Your task to perform on an android device: see tabs open on other devices in the chrome app Image 0: 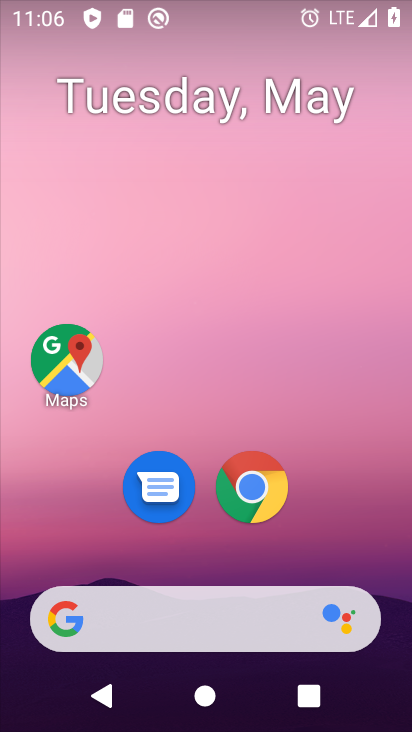
Step 0: drag from (217, 550) to (216, 63)
Your task to perform on an android device: see tabs open on other devices in the chrome app Image 1: 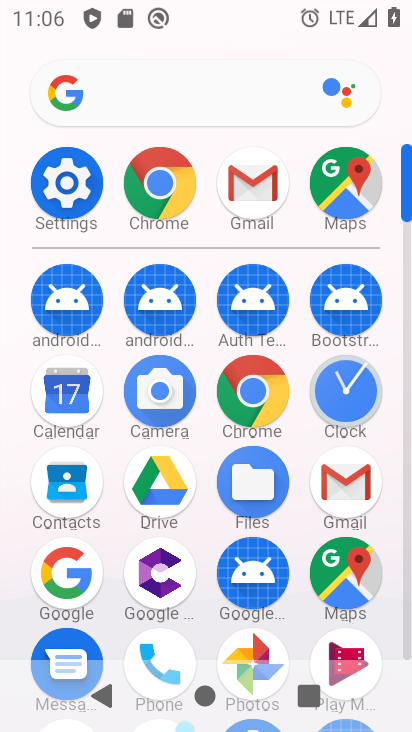
Step 1: click (255, 374)
Your task to perform on an android device: see tabs open on other devices in the chrome app Image 2: 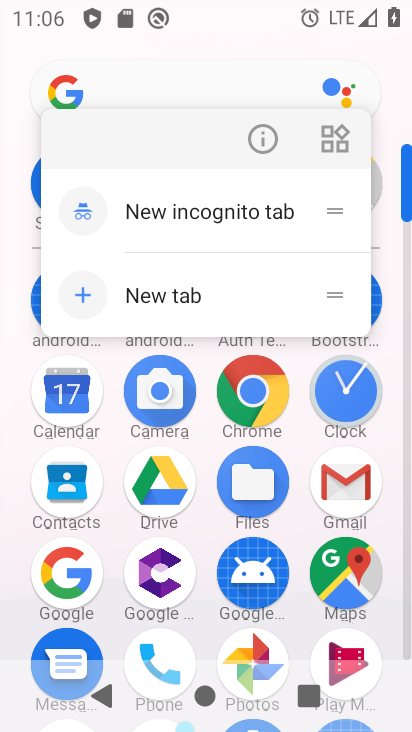
Step 2: click (270, 134)
Your task to perform on an android device: see tabs open on other devices in the chrome app Image 3: 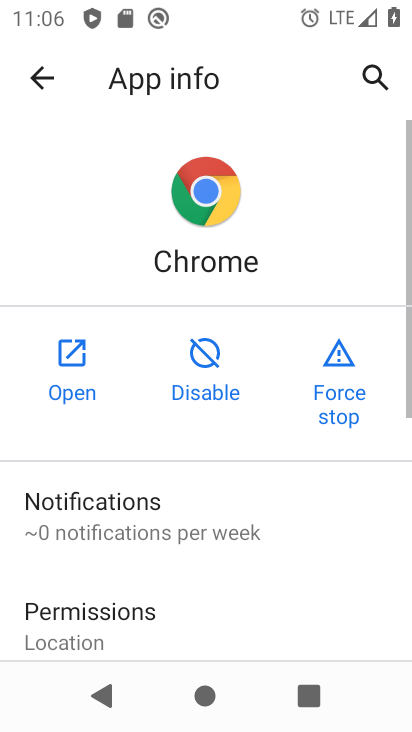
Step 3: click (82, 369)
Your task to perform on an android device: see tabs open on other devices in the chrome app Image 4: 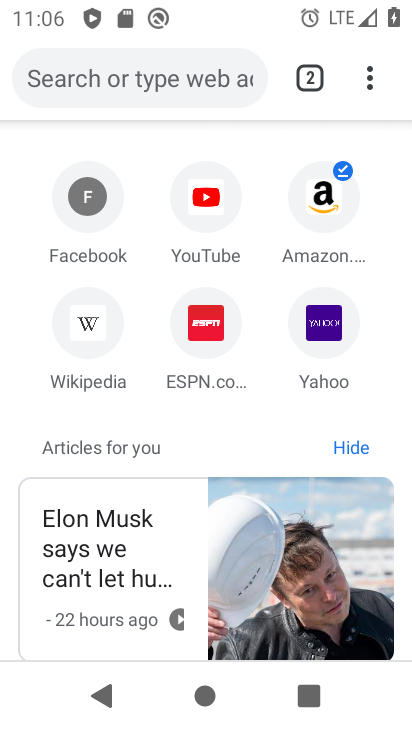
Step 4: click (378, 73)
Your task to perform on an android device: see tabs open on other devices in the chrome app Image 5: 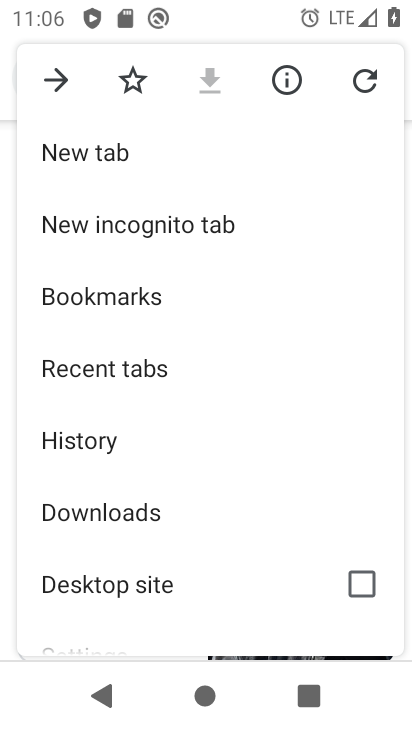
Step 5: drag from (160, 579) to (183, 265)
Your task to perform on an android device: see tabs open on other devices in the chrome app Image 6: 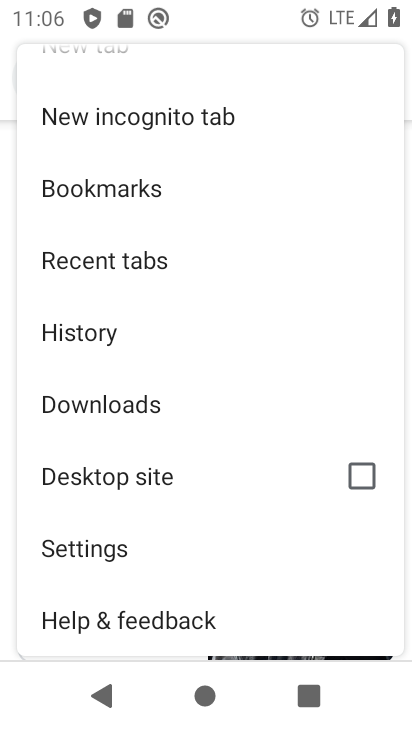
Step 6: click (146, 266)
Your task to perform on an android device: see tabs open on other devices in the chrome app Image 7: 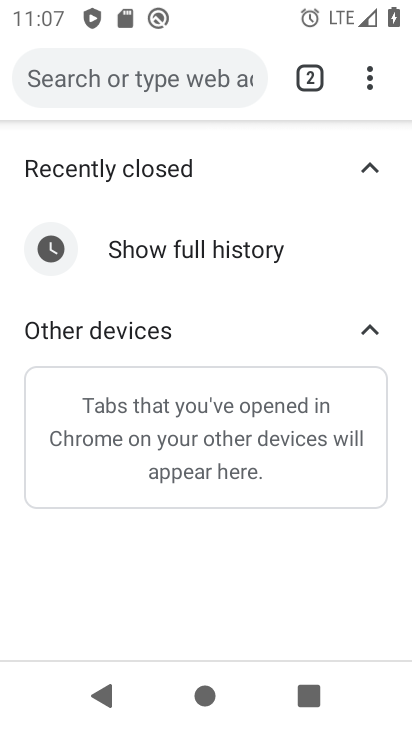
Step 7: task complete